Your task to perform on an android device: Search for apple airpods pro on target, select the first entry, and add it to the cart. Image 0: 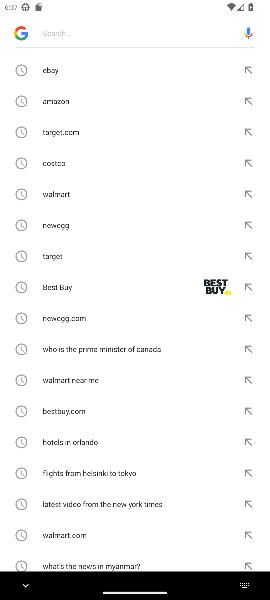
Step 0: press home button
Your task to perform on an android device: Search for apple airpods pro on target, select the first entry, and add it to the cart. Image 1: 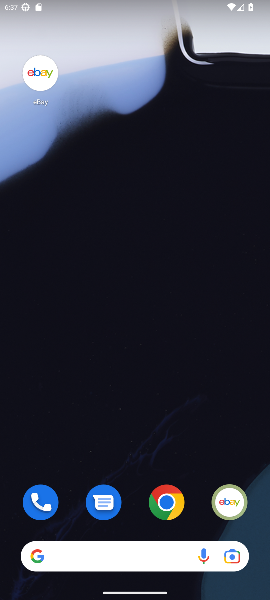
Step 1: drag from (126, 466) to (137, 151)
Your task to perform on an android device: Search for apple airpods pro on target, select the first entry, and add it to the cart. Image 2: 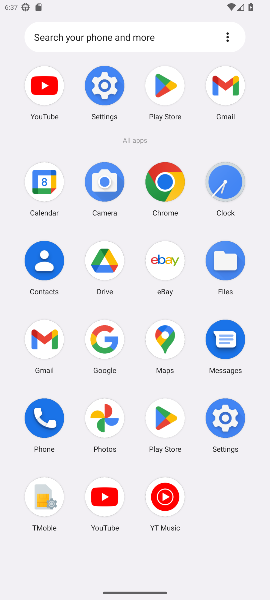
Step 2: click (104, 344)
Your task to perform on an android device: Search for apple airpods pro on target, select the first entry, and add it to the cart. Image 3: 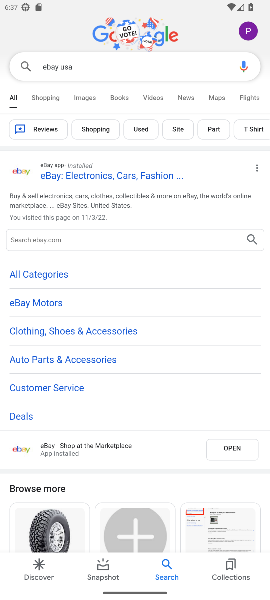
Step 3: click (121, 60)
Your task to perform on an android device: Search for apple airpods pro on target, select the first entry, and add it to the cart. Image 4: 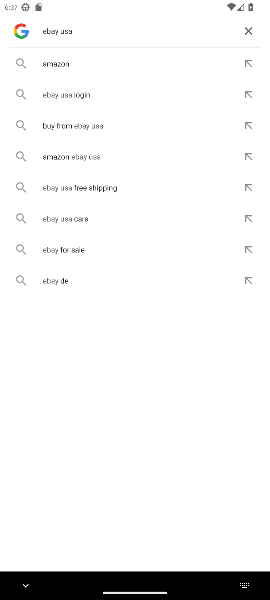
Step 4: click (253, 27)
Your task to perform on an android device: Search for apple airpods pro on target, select the first entry, and add it to the cart. Image 5: 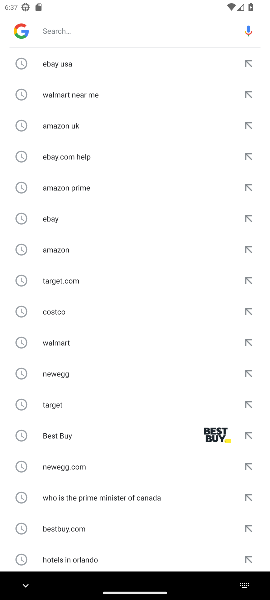
Step 5: click (95, 26)
Your task to perform on an android device: Search for apple airpods pro on target, select the first entry, and add it to the cart. Image 6: 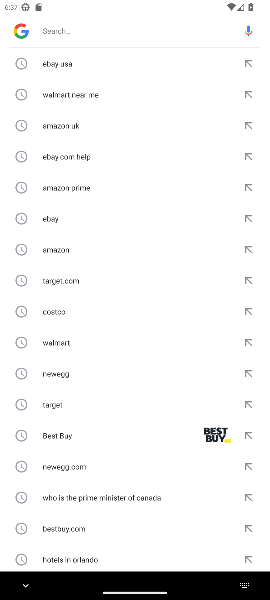
Step 6: type "target "
Your task to perform on an android device: Search for apple airpods pro on target, select the first entry, and add it to the cart. Image 7: 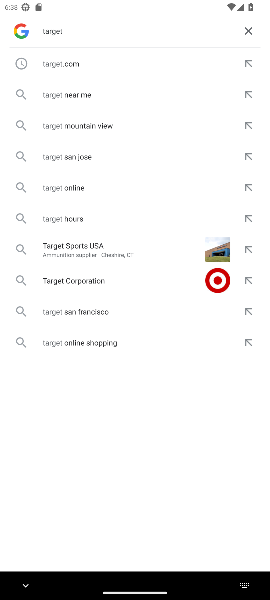
Step 7: click (46, 65)
Your task to perform on an android device: Search for apple airpods pro on target, select the first entry, and add it to the cart. Image 8: 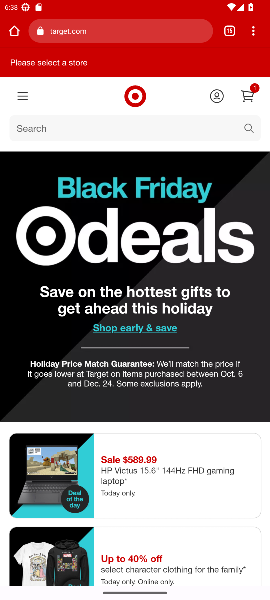
Step 8: click (77, 116)
Your task to perform on an android device: Search for apple airpods pro on target, select the first entry, and add it to the cart. Image 9: 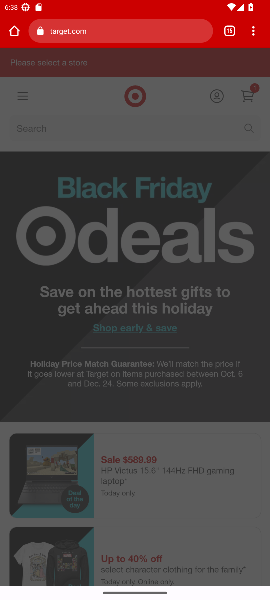
Step 9: click (77, 116)
Your task to perform on an android device: Search for apple airpods pro on target, select the first entry, and add it to the cart. Image 10: 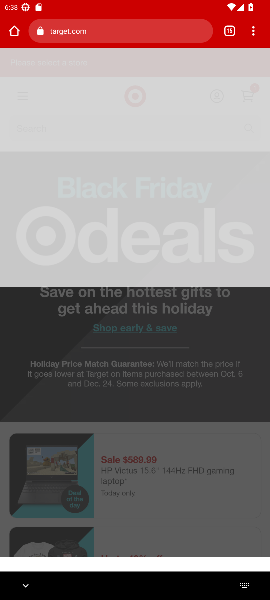
Step 10: click (78, 119)
Your task to perform on an android device: Search for apple airpods pro on target, select the first entry, and add it to the cart. Image 11: 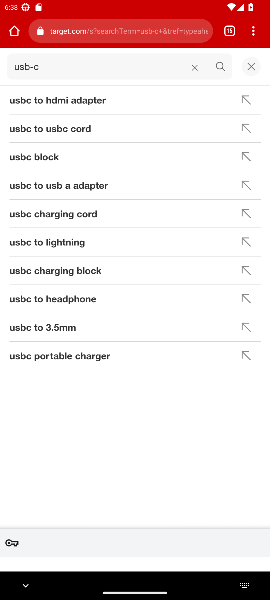
Step 11: click (196, 67)
Your task to perform on an android device: Search for apple airpods pro on target, select the first entry, and add it to the cart. Image 12: 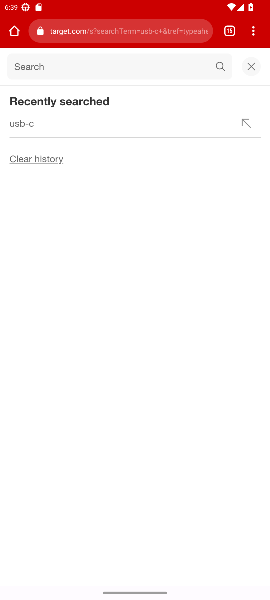
Step 12: click (135, 61)
Your task to perform on an android device: Search for apple airpods pro on target, select the first entry, and add it to the cart. Image 13: 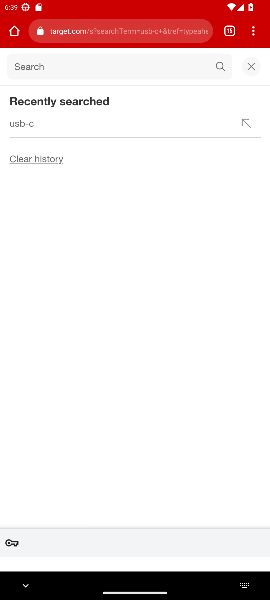
Step 13: type "airpods "
Your task to perform on an android device: Search for apple airpods pro on target, select the first entry, and add it to the cart. Image 14: 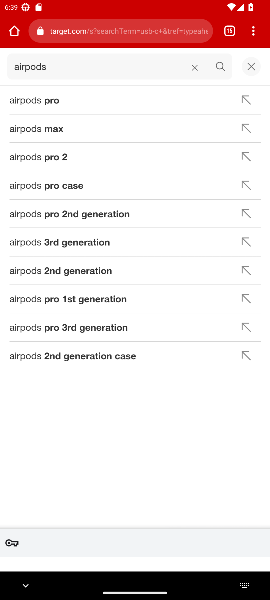
Step 14: click (46, 103)
Your task to perform on an android device: Search for apple airpods pro on target, select the first entry, and add it to the cart. Image 15: 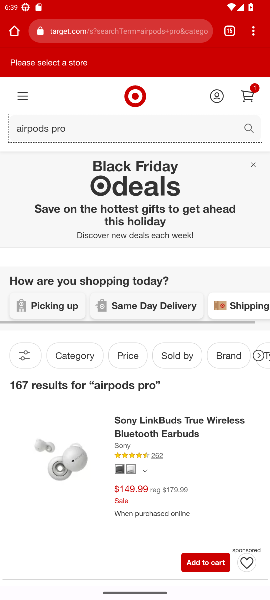
Step 15: click (209, 560)
Your task to perform on an android device: Search for apple airpods pro on target, select the first entry, and add it to the cart. Image 16: 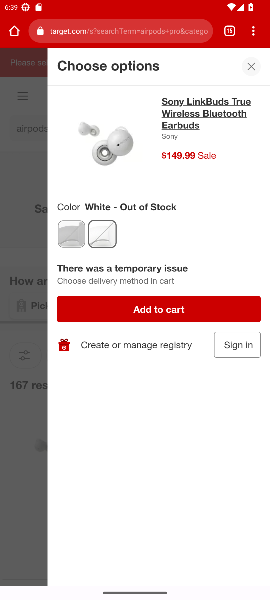
Step 16: click (167, 311)
Your task to perform on an android device: Search for apple airpods pro on target, select the first entry, and add it to the cart. Image 17: 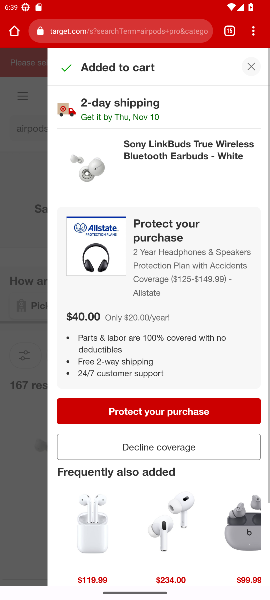
Step 17: task complete